Your task to perform on an android device: add a label to a message in the gmail app Image 0: 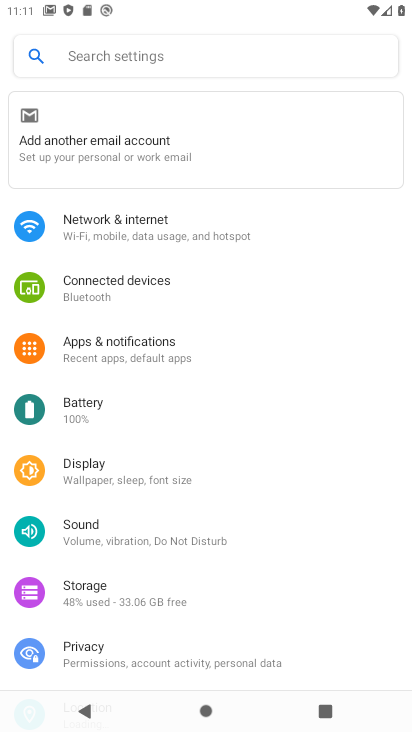
Step 0: press home button
Your task to perform on an android device: add a label to a message in the gmail app Image 1: 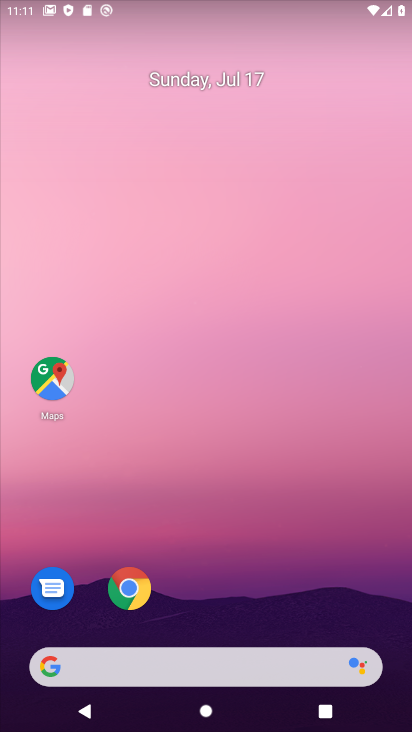
Step 1: drag from (200, 625) to (208, 228)
Your task to perform on an android device: add a label to a message in the gmail app Image 2: 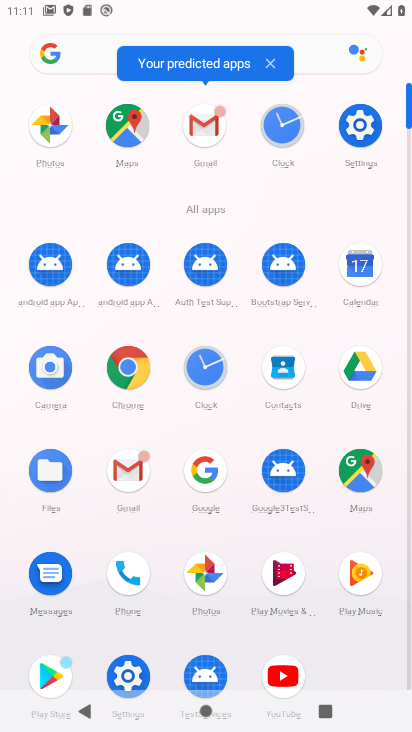
Step 2: click (116, 468)
Your task to perform on an android device: add a label to a message in the gmail app Image 3: 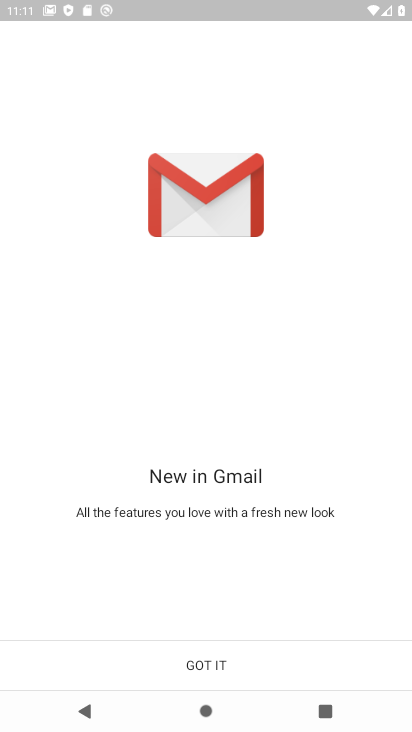
Step 3: click (225, 652)
Your task to perform on an android device: add a label to a message in the gmail app Image 4: 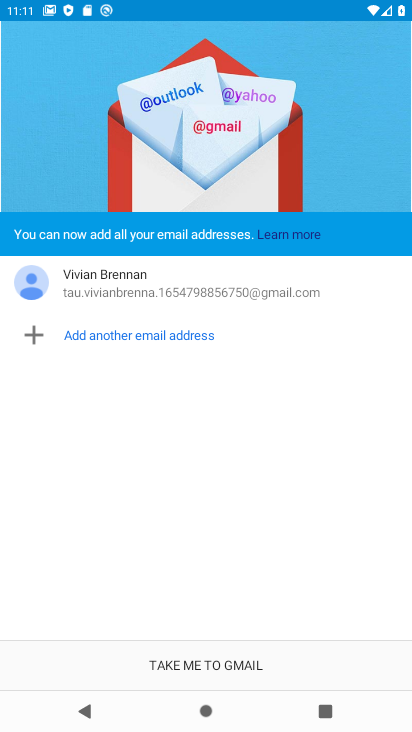
Step 4: click (226, 660)
Your task to perform on an android device: add a label to a message in the gmail app Image 5: 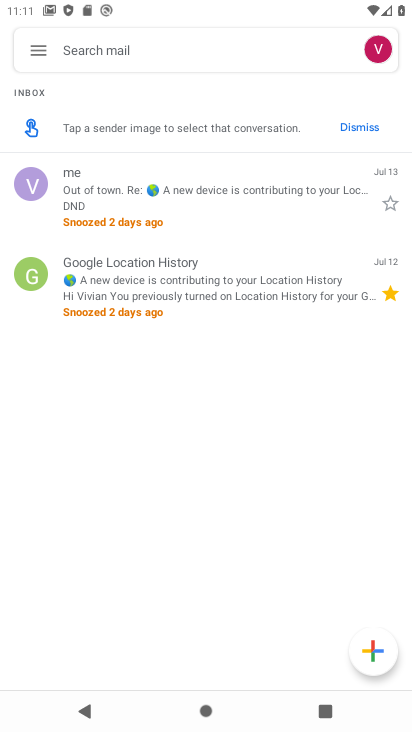
Step 5: click (211, 213)
Your task to perform on an android device: add a label to a message in the gmail app Image 6: 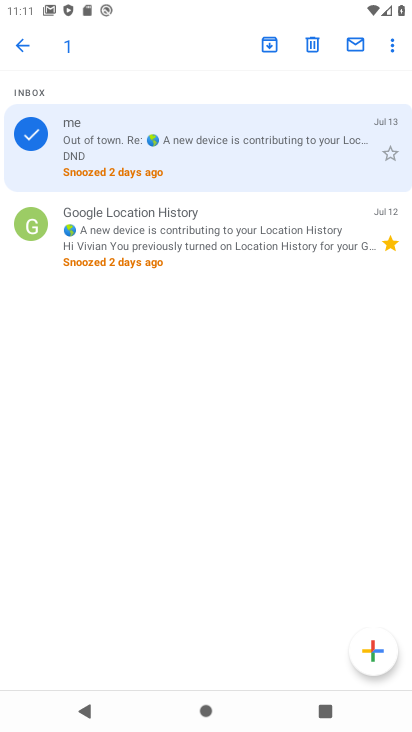
Step 6: click (399, 54)
Your task to perform on an android device: add a label to a message in the gmail app Image 7: 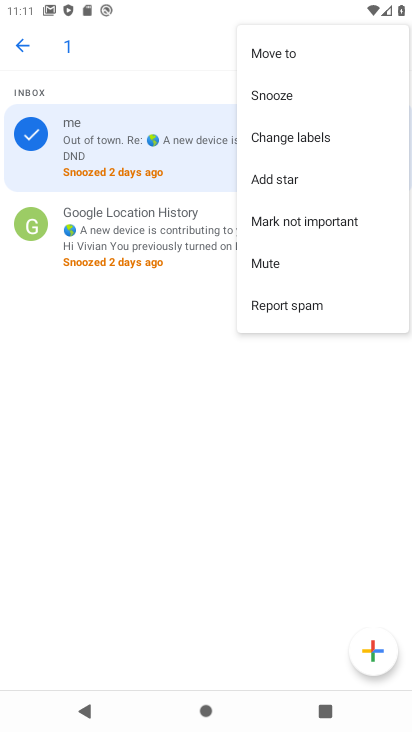
Step 7: click (344, 143)
Your task to perform on an android device: add a label to a message in the gmail app Image 8: 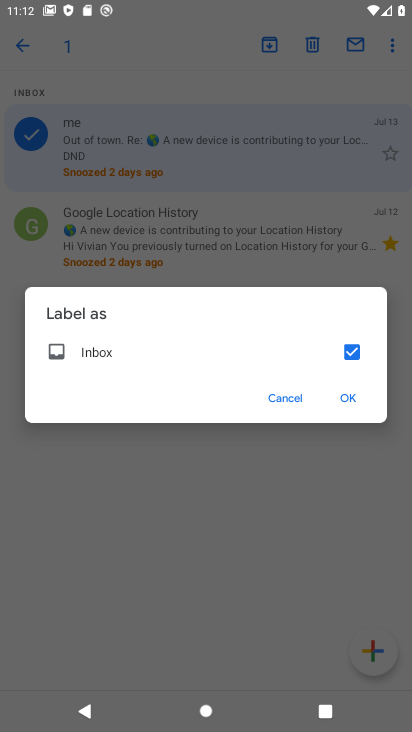
Step 8: task complete